Your task to perform on an android device: Set the phone to "Do not disturb". Image 0: 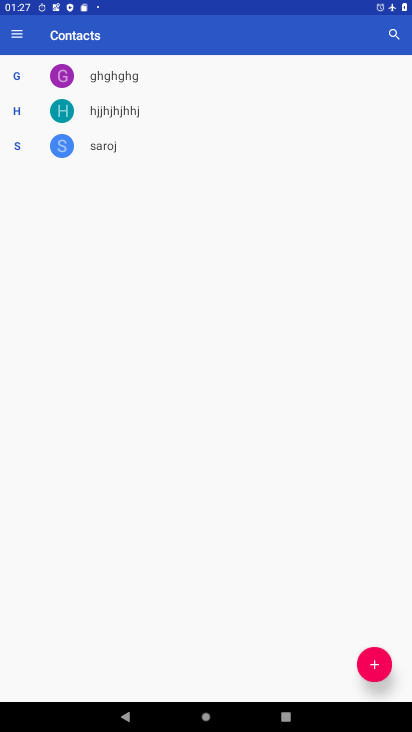
Step 0: press home button
Your task to perform on an android device: Set the phone to "Do not disturb". Image 1: 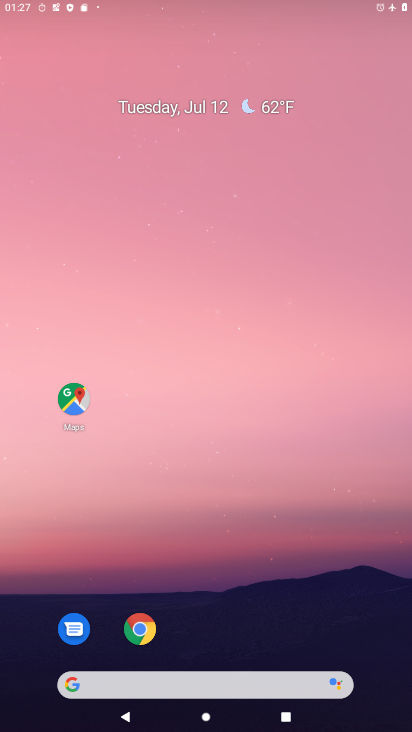
Step 1: drag from (225, 608) to (307, 0)
Your task to perform on an android device: Set the phone to "Do not disturb". Image 2: 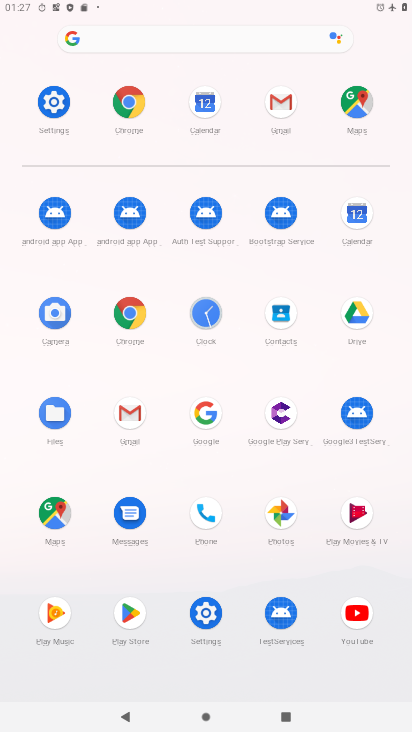
Step 2: drag from (209, 8) to (155, 476)
Your task to perform on an android device: Set the phone to "Do not disturb". Image 3: 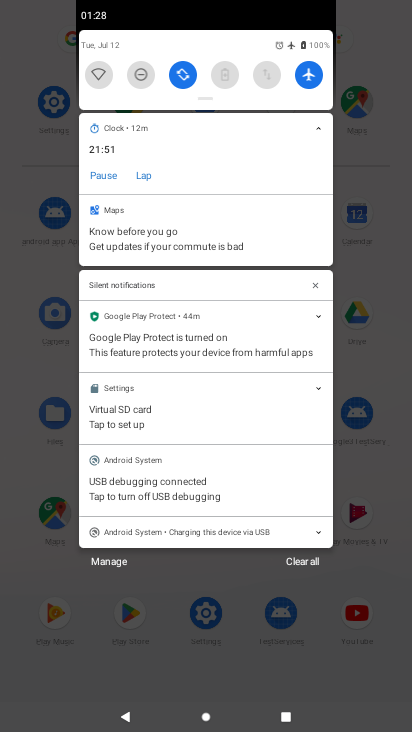
Step 3: click (142, 74)
Your task to perform on an android device: Set the phone to "Do not disturb". Image 4: 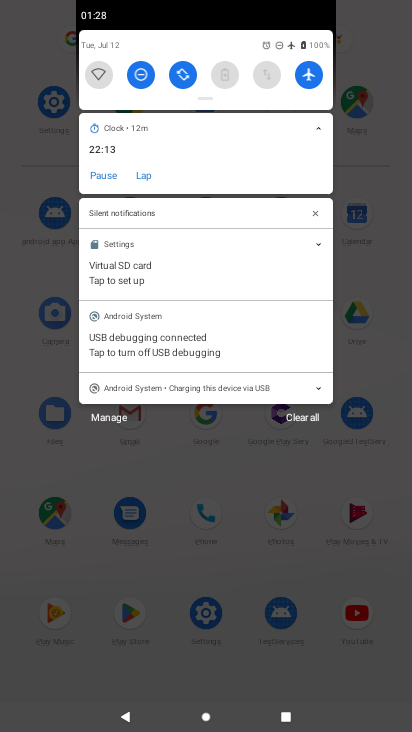
Step 4: task complete